Your task to perform on an android device: Search for sushi restaurants on Maps Image 0: 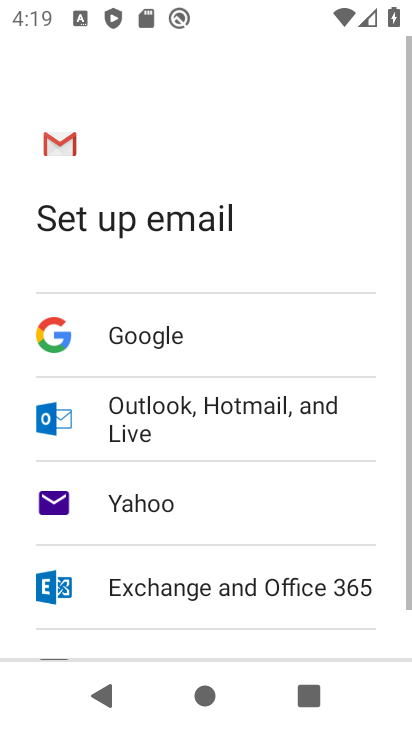
Step 0: press home button
Your task to perform on an android device: Search for sushi restaurants on Maps Image 1: 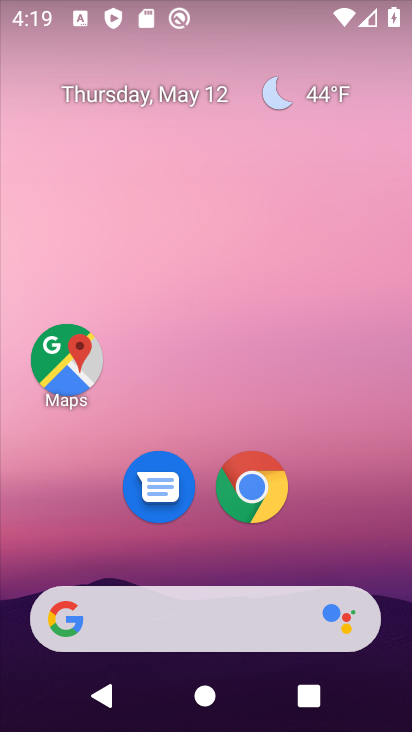
Step 1: click (64, 356)
Your task to perform on an android device: Search for sushi restaurants on Maps Image 2: 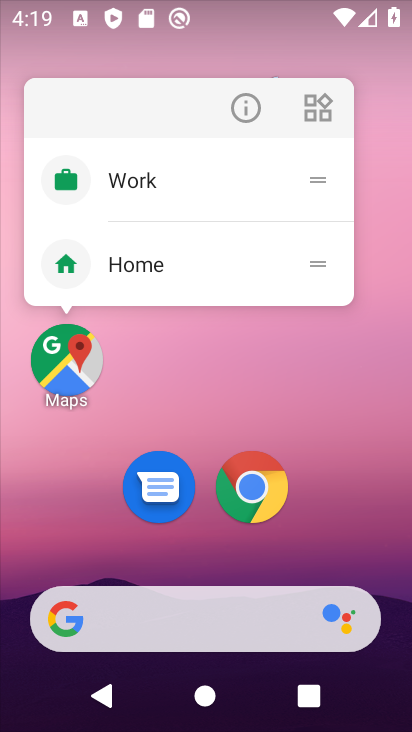
Step 2: click (93, 372)
Your task to perform on an android device: Search for sushi restaurants on Maps Image 3: 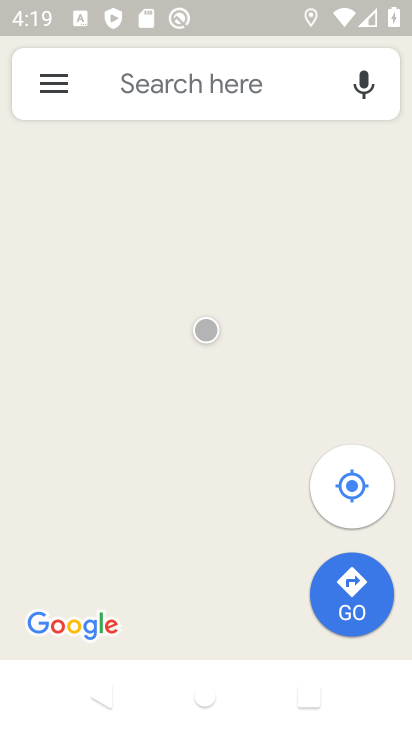
Step 3: click (197, 88)
Your task to perform on an android device: Search for sushi restaurants on Maps Image 4: 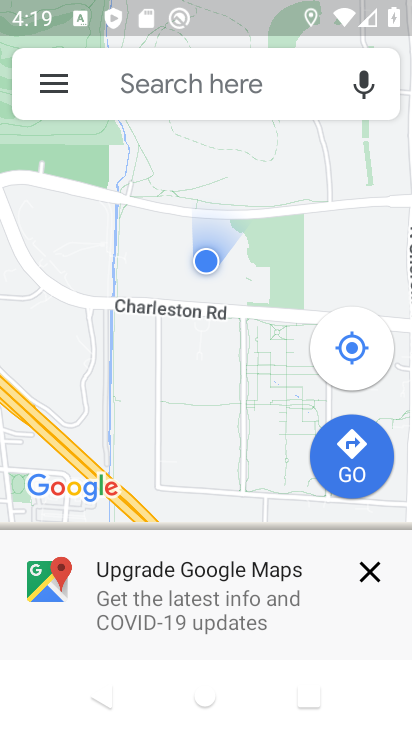
Step 4: click (197, 88)
Your task to perform on an android device: Search for sushi restaurants on Maps Image 5: 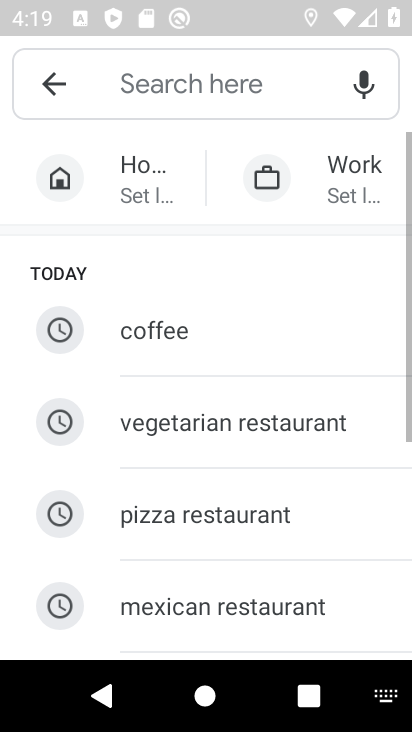
Step 5: drag from (286, 547) to (258, 209)
Your task to perform on an android device: Search for sushi restaurants on Maps Image 6: 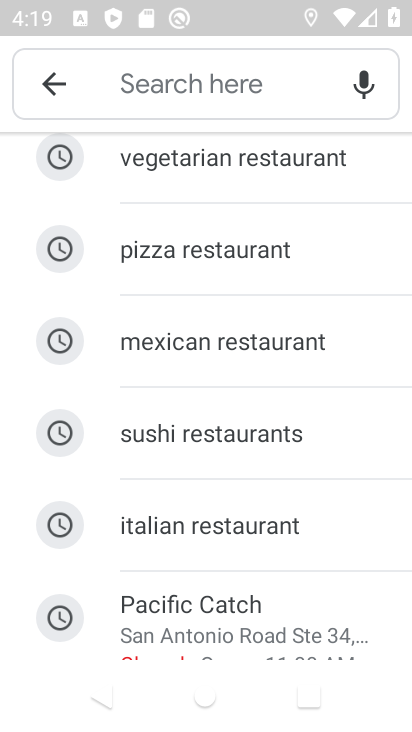
Step 6: click (263, 437)
Your task to perform on an android device: Search for sushi restaurants on Maps Image 7: 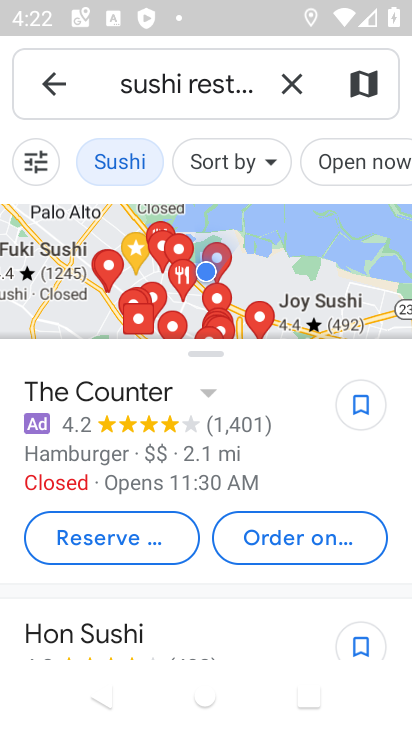
Step 7: task complete